Your task to perform on an android device: Open calendar and show me the third week of next month Image 0: 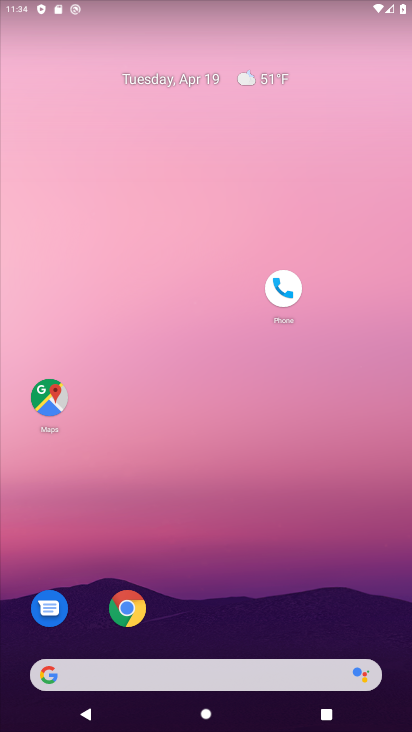
Step 0: drag from (200, 590) to (261, 122)
Your task to perform on an android device: Open calendar and show me the third week of next month Image 1: 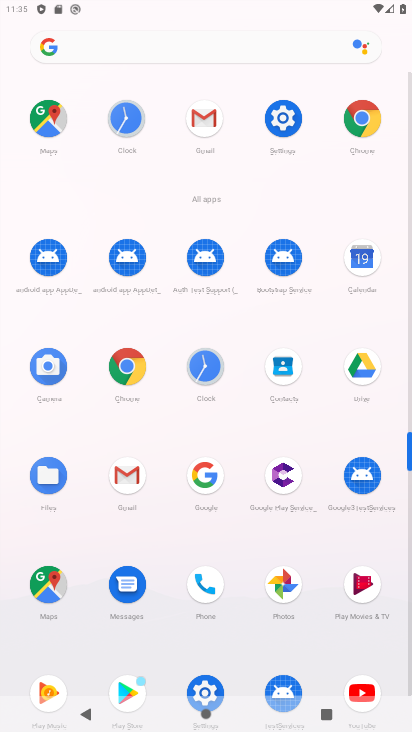
Step 1: click (369, 263)
Your task to perform on an android device: Open calendar and show me the third week of next month Image 2: 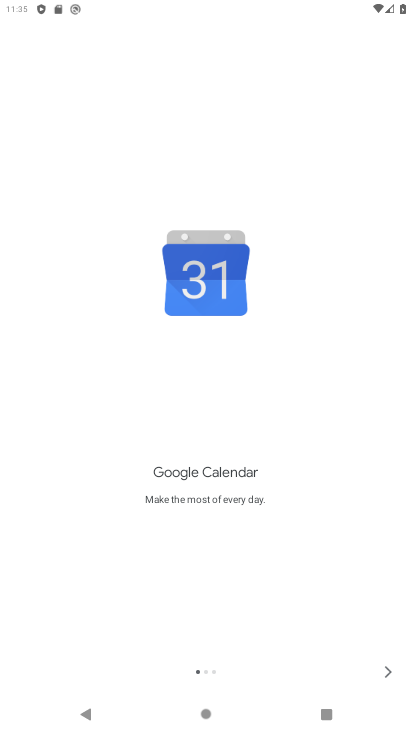
Step 2: click (389, 671)
Your task to perform on an android device: Open calendar and show me the third week of next month Image 3: 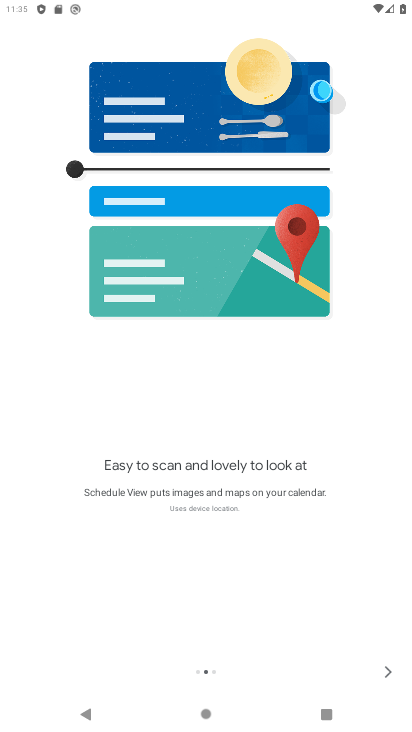
Step 3: click (390, 669)
Your task to perform on an android device: Open calendar and show me the third week of next month Image 4: 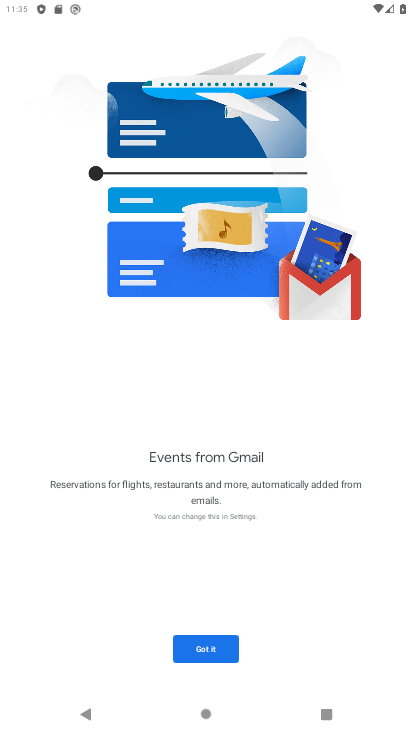
Step 4: click (205, 649)
Your task to perform on an android device: Open calendar and show me the third week of next month Image 5: 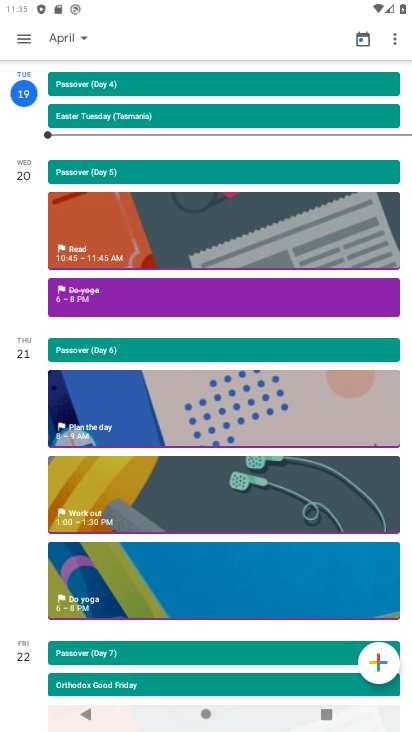
Step 5: click (64, 37)
Your task to perform on an android device: Open calendar and show me the third week of next month Image 6: 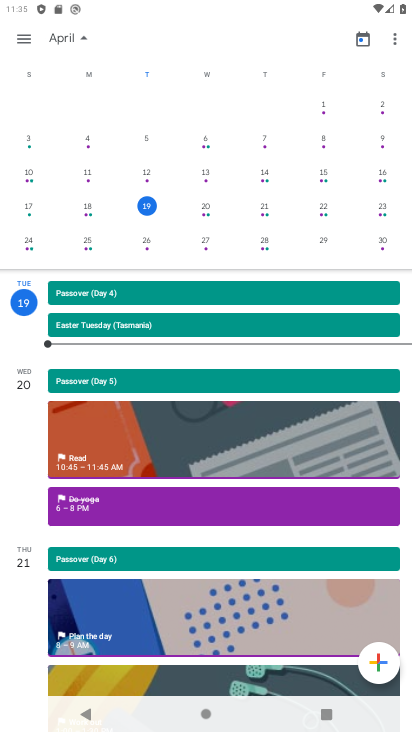
Step 6: drag from (339, 185) to (63, 183)
Your task to perform on an android device: Open calendar and show me the third week of next month Image 7: 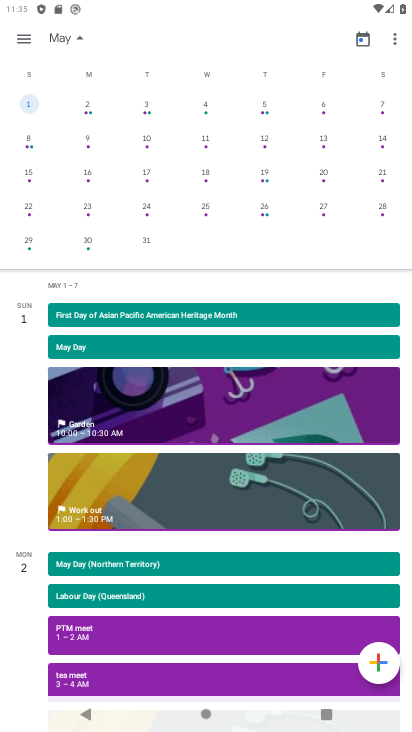
Step 7: click (140, 169)
Your task to perform on an android device: Open calendar and show me the third week of next month Image 8: 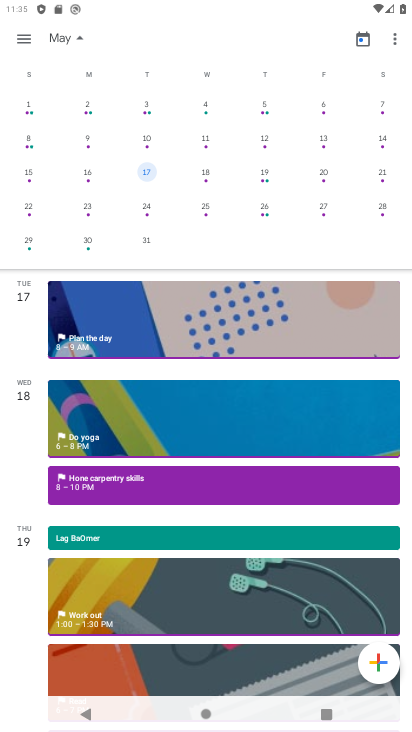
Step 8: click (16, 41)
Your task to perform on an android device: Open calendar and show me the third week of next month Image 9: 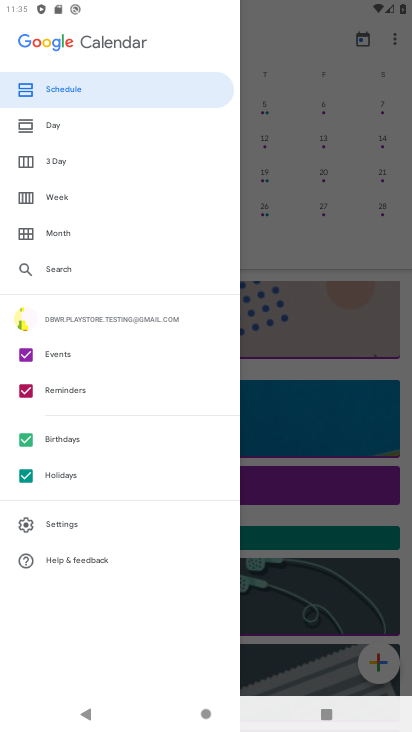
Step 9: click (75, 198)
Your task to perform on an android device: Open calendar and show me the third week of next month Image 10: 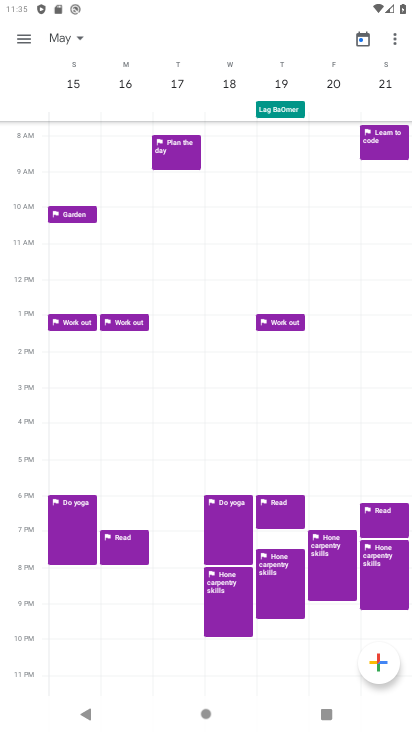
Step 10: task complete